Your task to perform on an android device: stop showing notifications on the lock screen Image 0: 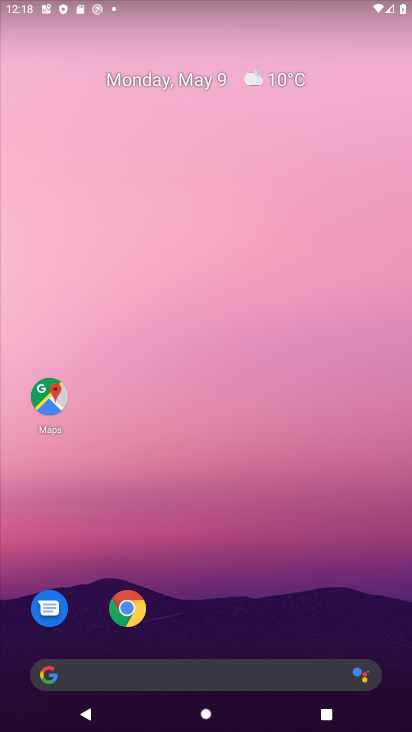
Step 0: drag from (275, 590) to (237, 89)
Your task to perform on an android device: stop showing notifications on the lock screen Image 1: 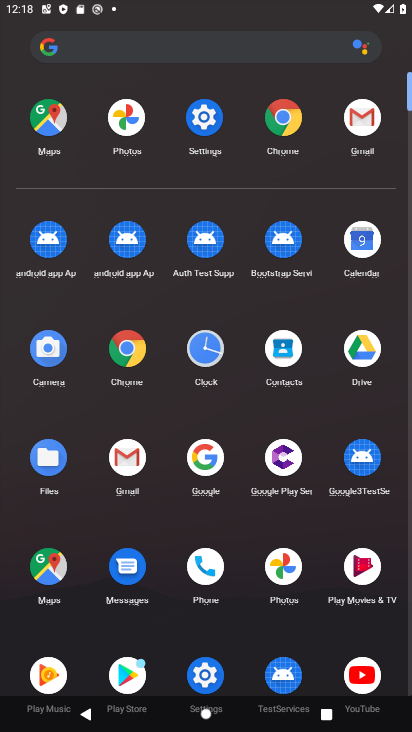
Step 1: click (205, 143)
Your task to perform on an android device: stop showing notifications on the lock screen Image 2: 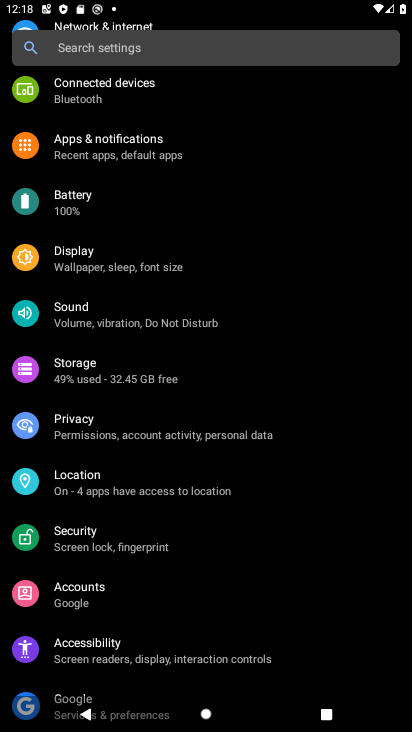
Step 2: click (184, 149)
Your task to perform on an android device: stop showing notifications on the lock screen Image 3: 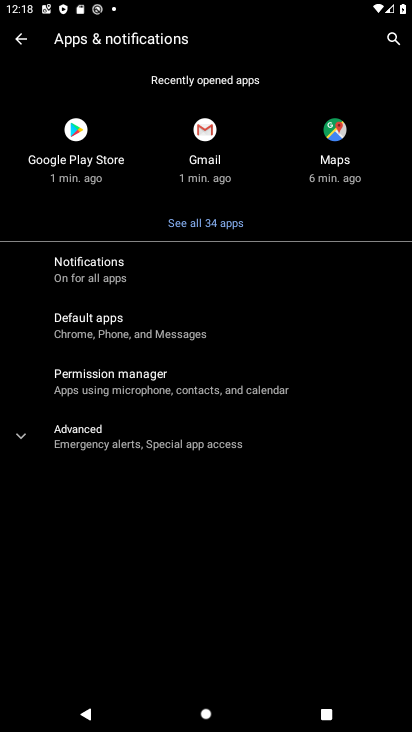
Step 3: click (136, 253)
Your task to perform on an android device: stop showing notifications on the lock screen Image 4: 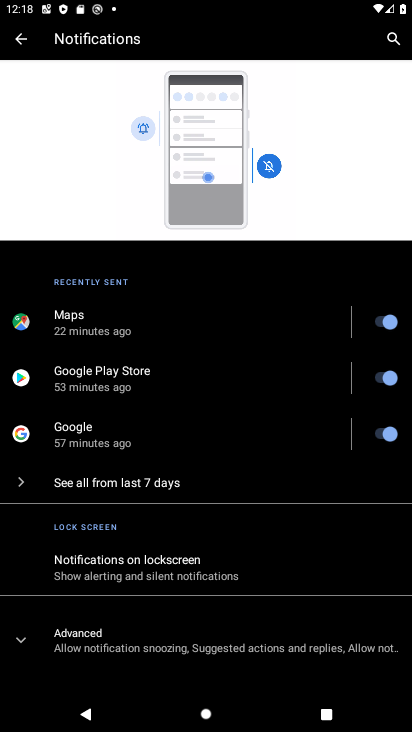
Step 4: drag from (117, 539) to (146, 375)
Your task to perform on an android device: stop showing notifications on the lock screen Image 5: 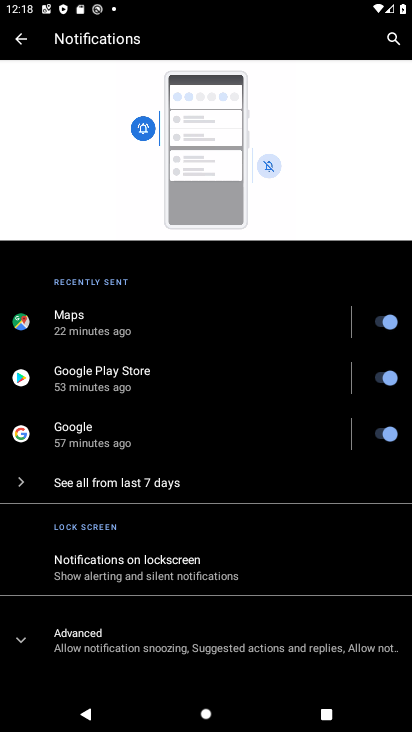
Step 5: click (132, 559)
Your task to perform on an android device: stop showing notifications on the lock screen Image 6: 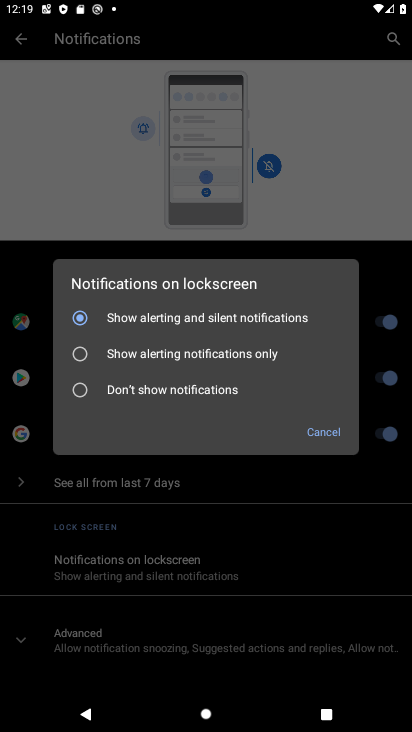
Step 6: click (168, 392)
Your task to perform on an android device: stop showing notifications on the lock screen Image 7: 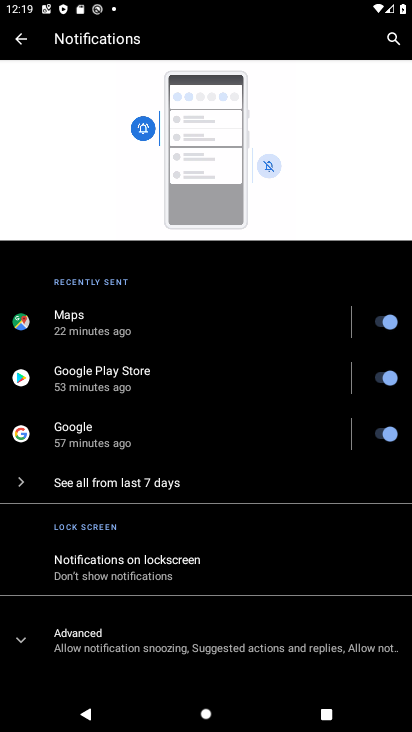
Step 7: task complete